Your task to perform on an android device: Go to internet settings Image 0: 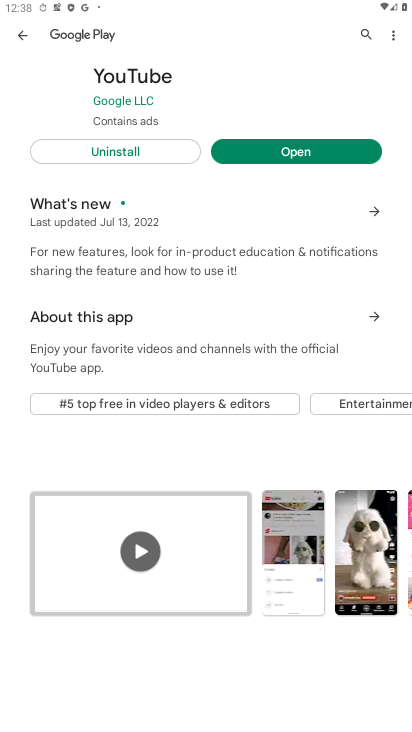
Step 0: click (272, 548)
Your task to perform on an android device: Go to internet settings Image 1: 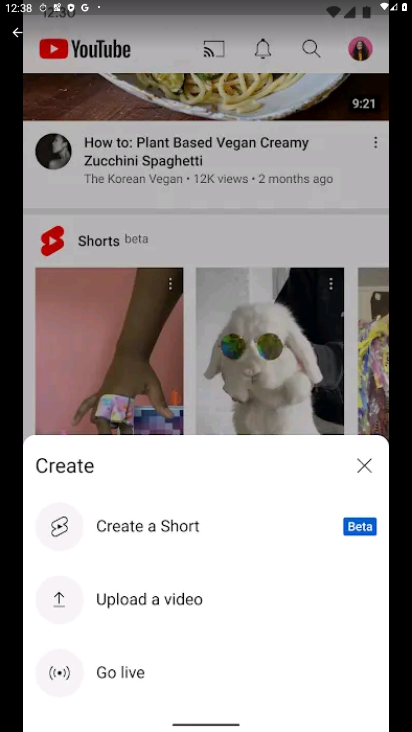
Step 1: press home button
Your task to perform on an android device: Go to internet settings Image 2: 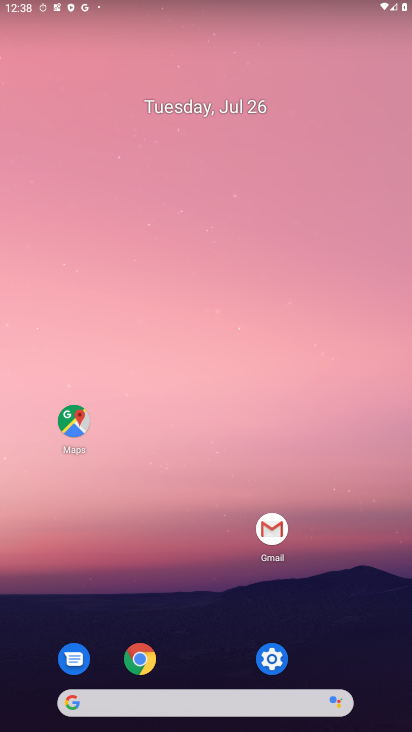
Step 2: click (278, 660)
Your task to perform on an android device: Go to internet settings Image 3: 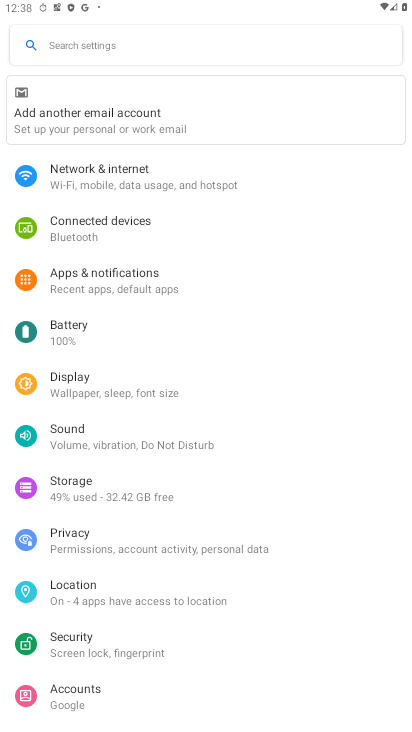
Step 3: click (114, 174)
Your task to perform on an android device: Go to internet settings Image 4: 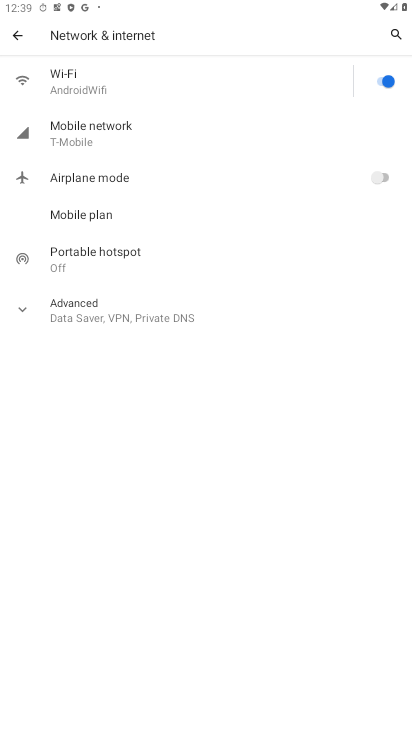
Step 4: task complete